Your task to perform on an android device: Go to network settings Image 0: 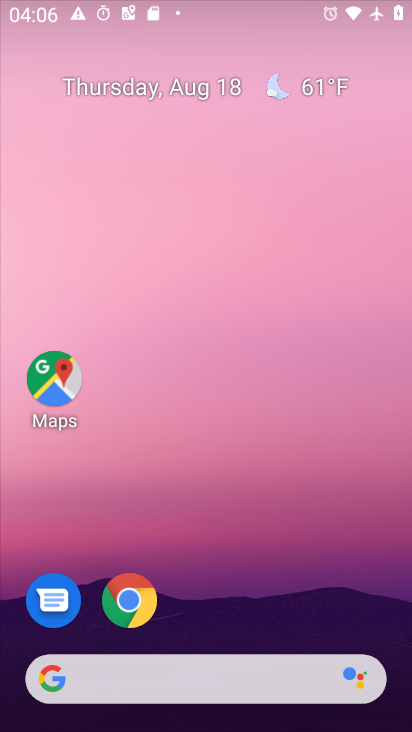
Step 0: press home button
Your task to perform on an android device: Go to network settings Image 1: 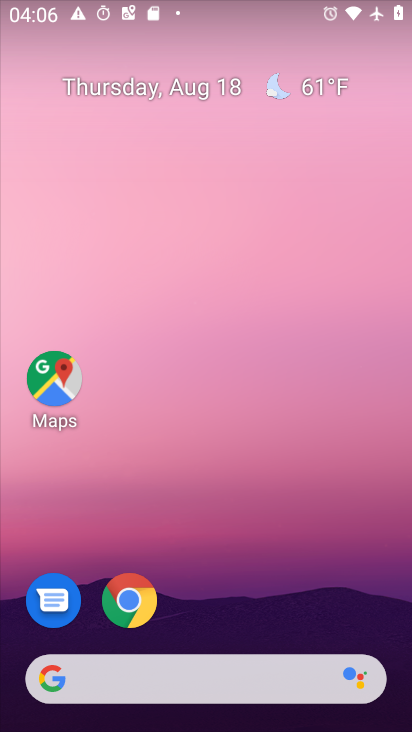
Step 1: drag from (251, 631) to (261, 183)
Your task to perform on an android device: Go to network settings Image 2: 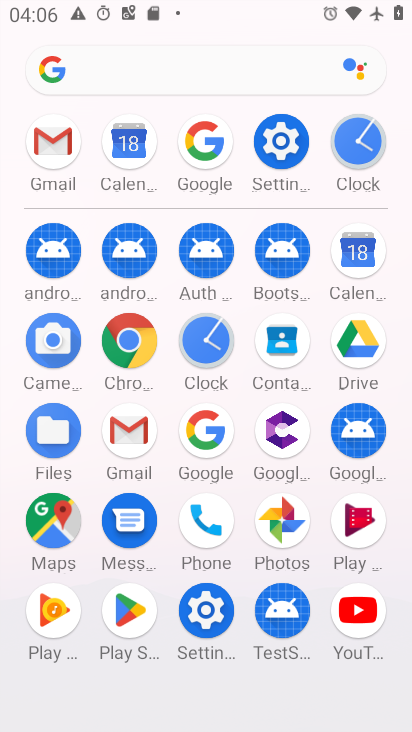
Step 2: click (273, 151)
Your task to perform on an android device: Go to network settings Image 3: 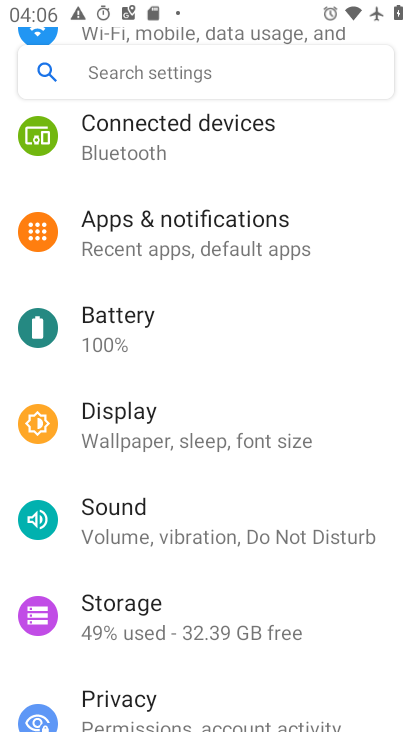
Step 3: drag from (243, 202) to (223, 726)
Your task to perform on an android device: Go to network settings Image 4: 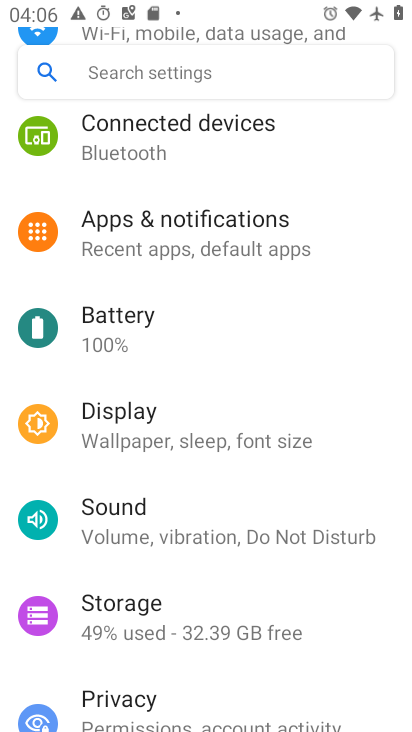
Step 4: drag from (297, 145) to (273, 649)
Your task to perform on an android device: Go to network settings Image 5: 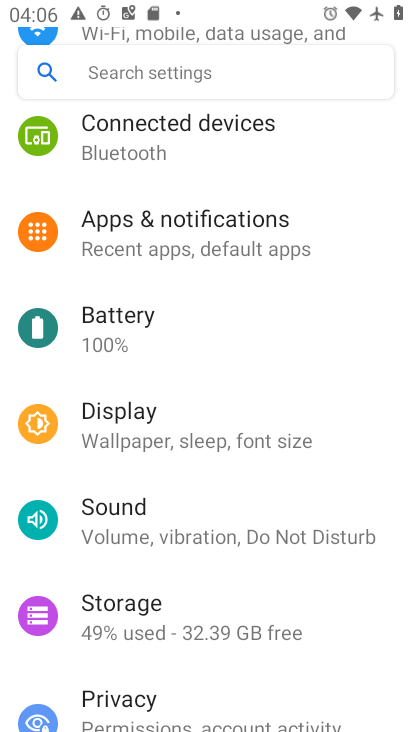
Step 5: drag from (217, 171) to (138, 660)
Your task to perform on an android device: Go to network settings Image 6: 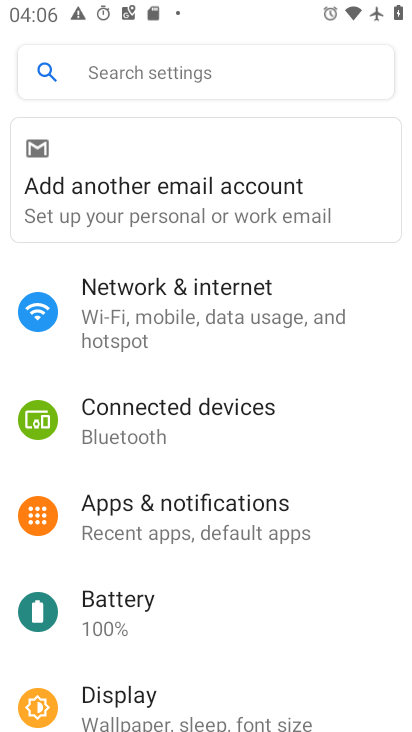
Step 6: click (150, 301)
Your task to perform on an android device: Go to network settings Image 7: 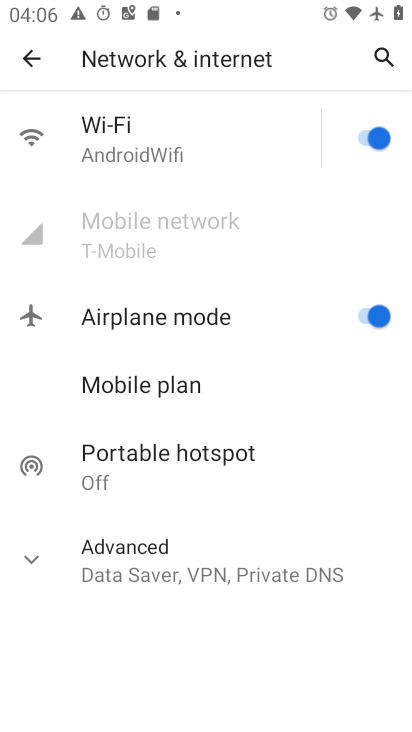
Step 7: task complete